Your task to perform on an android device: toggle wifi Image 0: 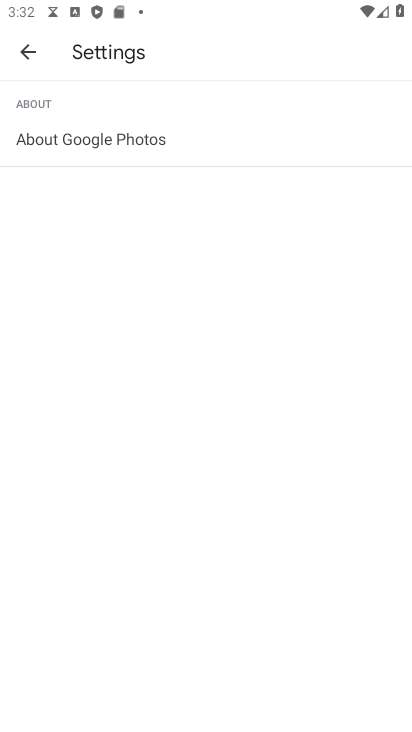
Step 0: press home button
Your task to perform on an android device: toggle wifi Image 1: 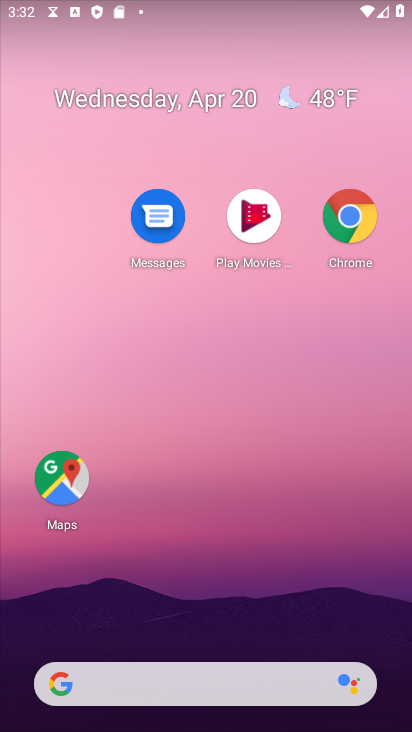
Step 1: drag from (263, 613) to (291, 129)
Your task to perform on an android device: toggle wifi Image 2: 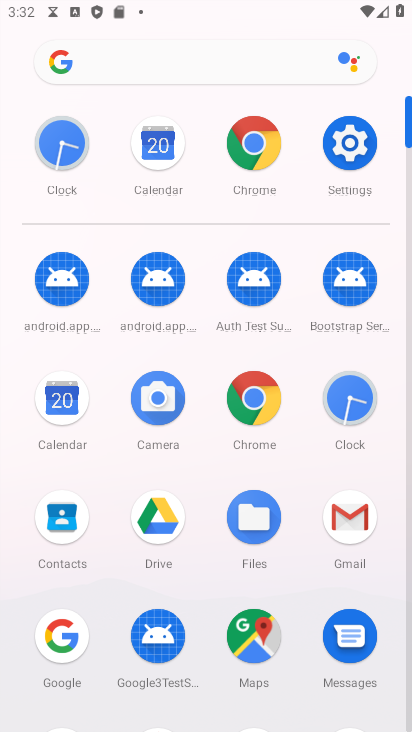
Step 2: click (352, 137)
Your task to perform on an android device: toggle wifi Image 3: 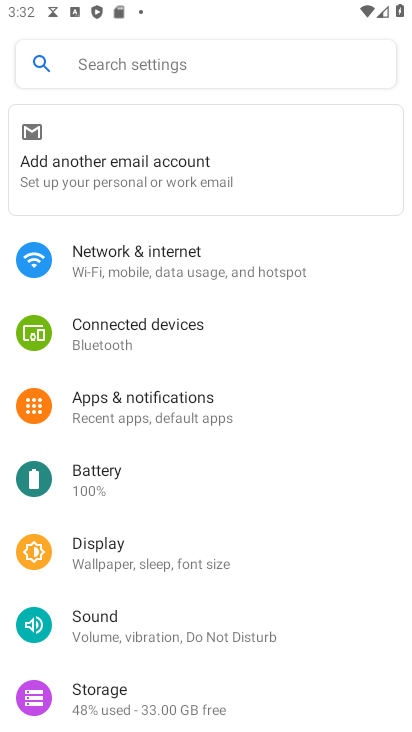
Step 3: click (173, 277)
Your task to perform on an android device: toggle wifi Image 4: 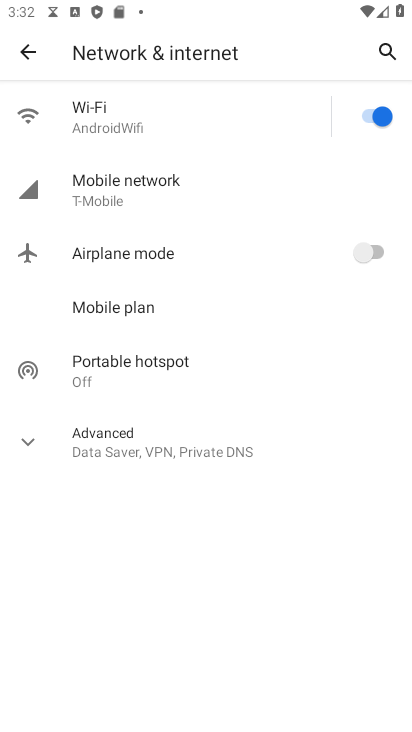
Step 4: click (385, 114)
Your task to perform on an android device: toggle wifi Image 5: 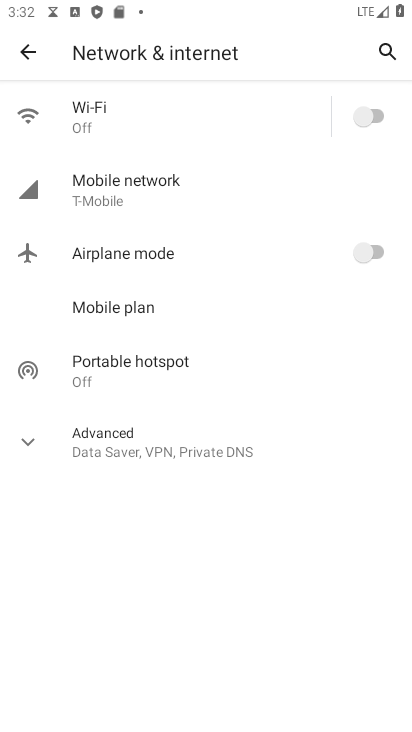
Step 5: task complete